Your task to perform on an android device: Is it going to rain tomorrow? Image 0: 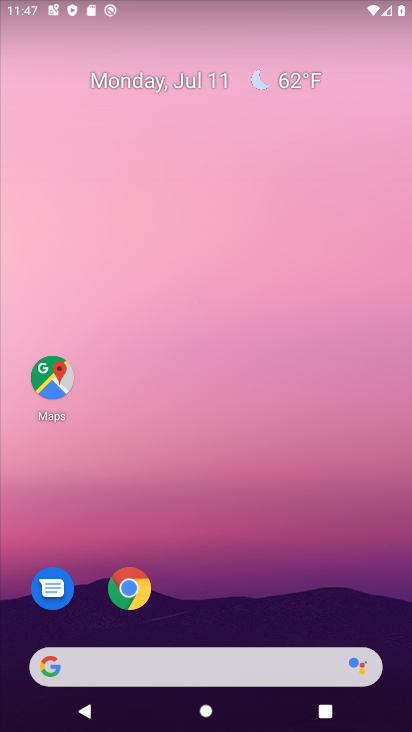
Step 0: click (254, 674)
Your task to perform on an android device: Is it going to rain tomorrow? Image 1: 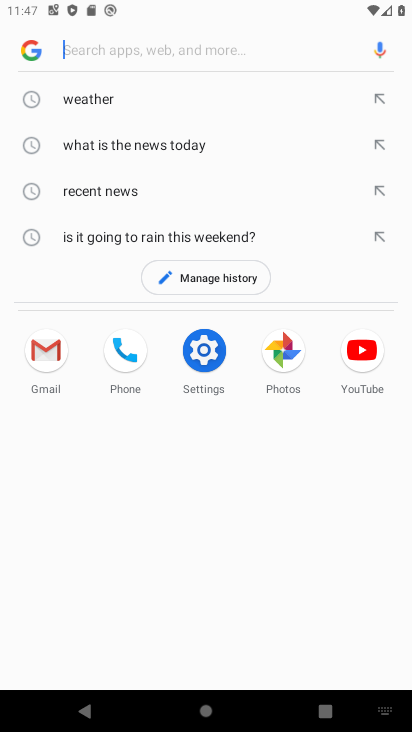
Step 1: click (92, 108)
Your task to perform on an android device: Is it going to rain tomorrow? Image 2: 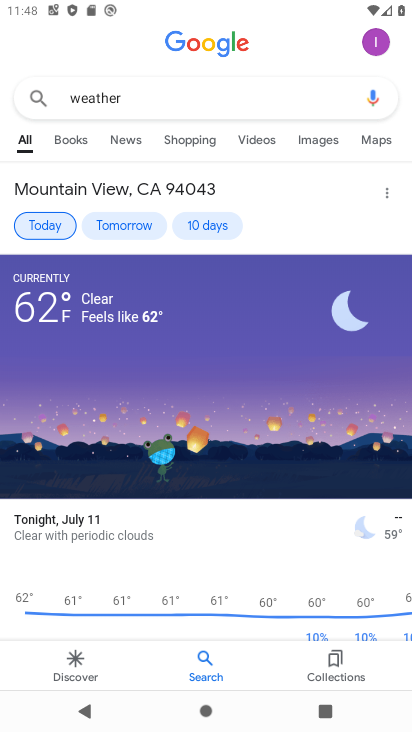
Step 2: click (103, 225)
Your task to perform on an android device: Is it going to rain tomorrow? Image 3: 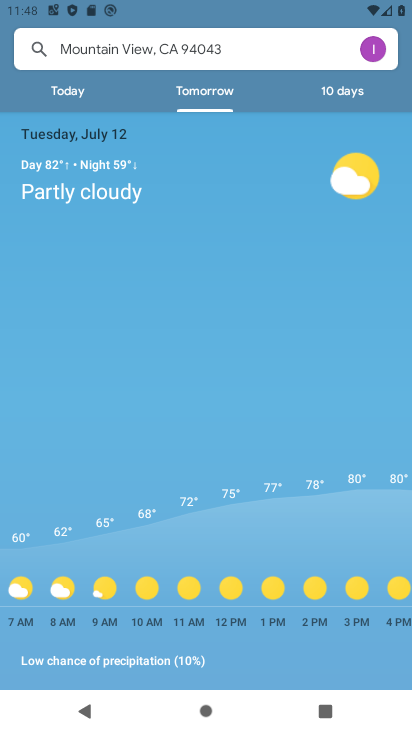
Step 3: task complete